Your task to perform on an android device: change keyboard looks Image 0: 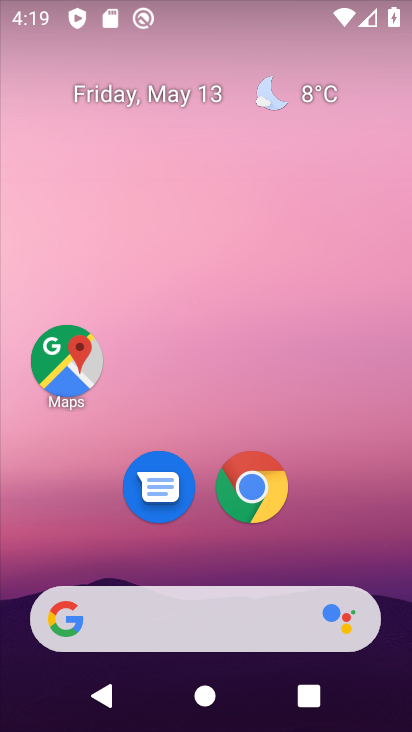
Step 0: click (82, 373)
Your task to perform on an android device: change keyboard looks Image 1: 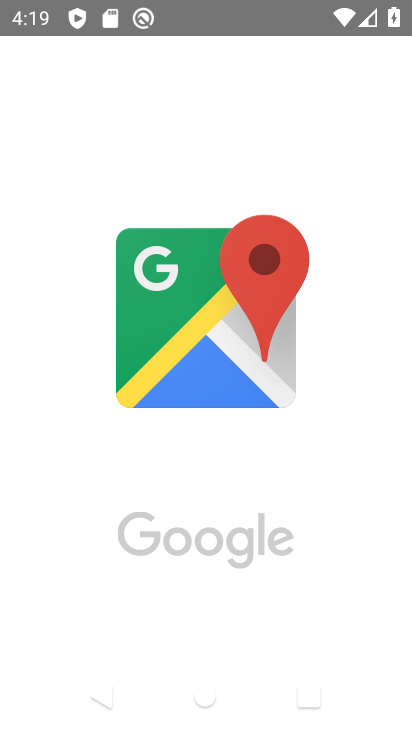
Step 1: press home button
Your task to perform on an android device: change keyboard looks Image 2: 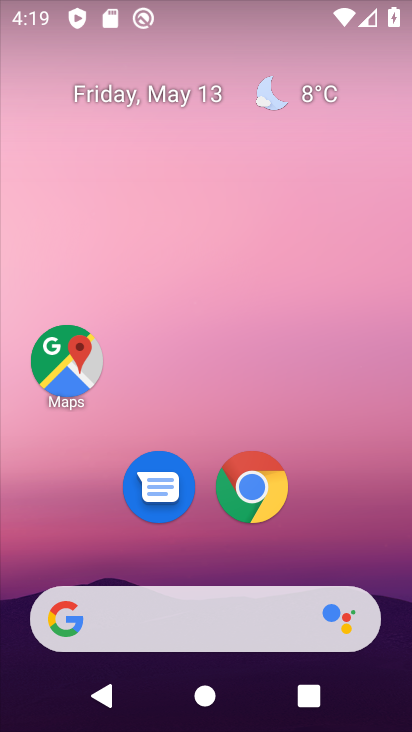
Step 2: drag from (349, 530) to (354, 221)
Your task to perform on an android device: change keyboard looks Image 3: 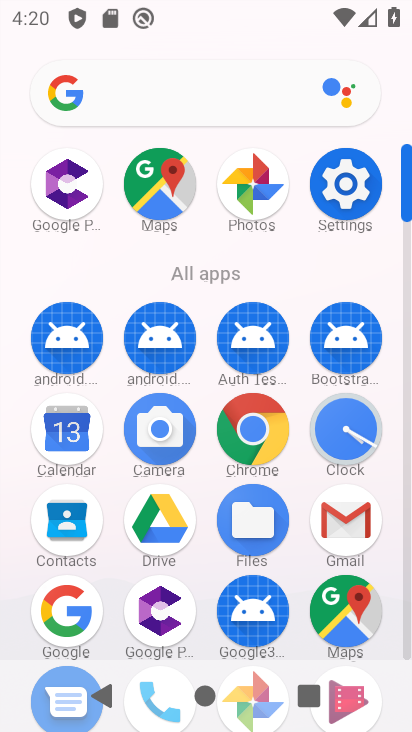
Step 3: click (333, 215)
Your task to perform on an android device: change keyboard looks Image 4: 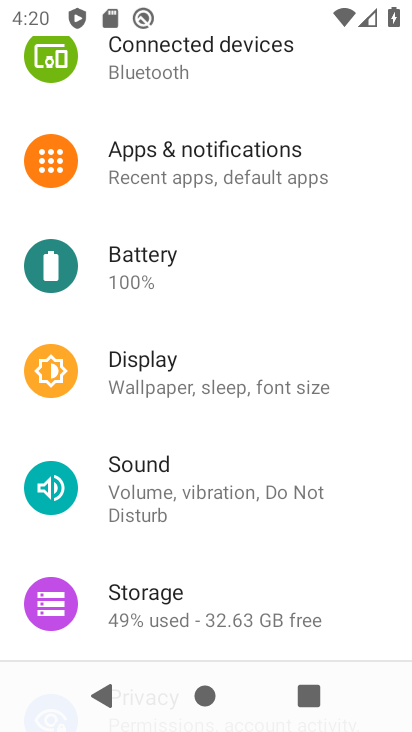
Step 4: drag from (217, 397) to (251, 240)
Your task to perform on an android device: change keyboard looks Image 5: 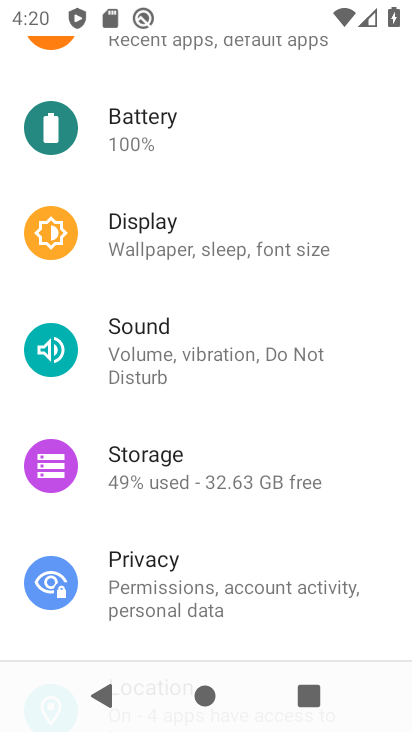
Step 5: drag from (217, 378) to (229, 176)
Your task to perform on an android device: change keyboard looks Image 6: 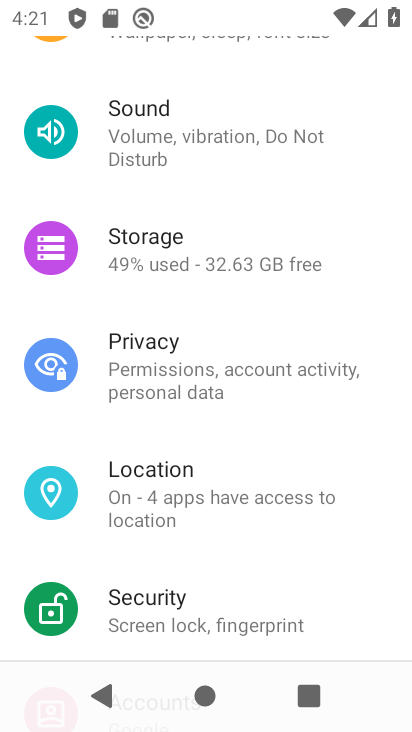
Step 6: drag from (179, 557) to (230, 288)
Your task to perform on an android device: change keyboard looks Image 7: 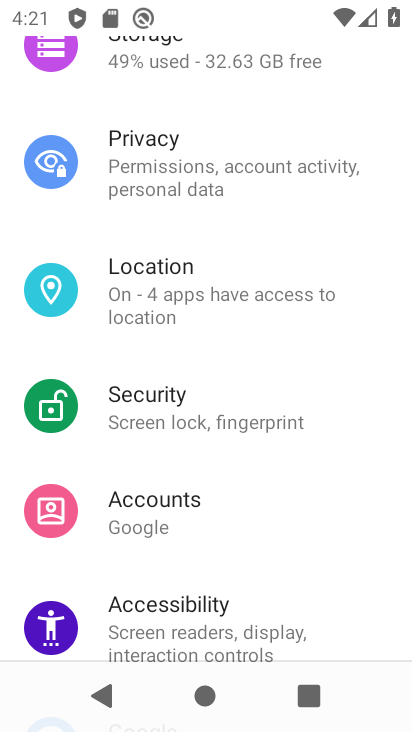
Step 7: drag from (175, 593) to (213, 392)
Your task to perform on an android device: change keyboard looks Image 8: 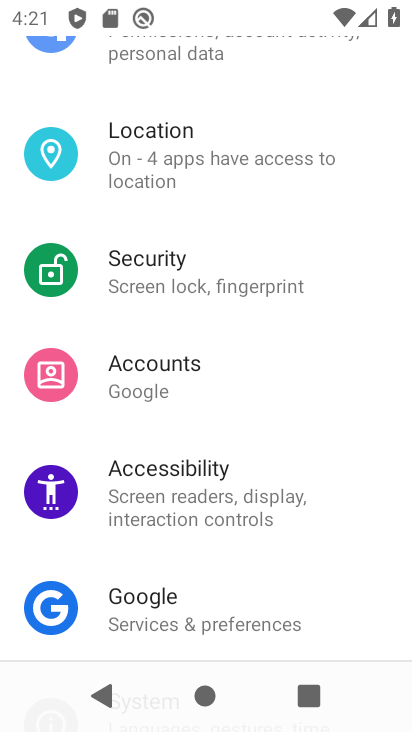
Step 8: drag from (200, 640) to (204, 417)
Your task to perform on an android device: change keyboard looks Image 9: 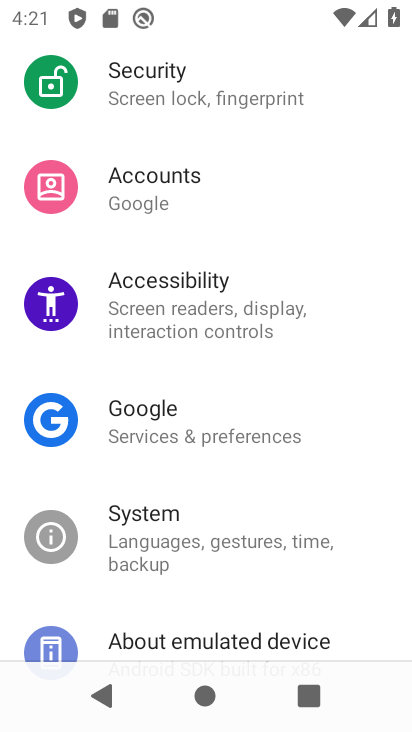
Step 9: click (207, 641)
Your task to perform on an android device: change keyboard looks Image 10: 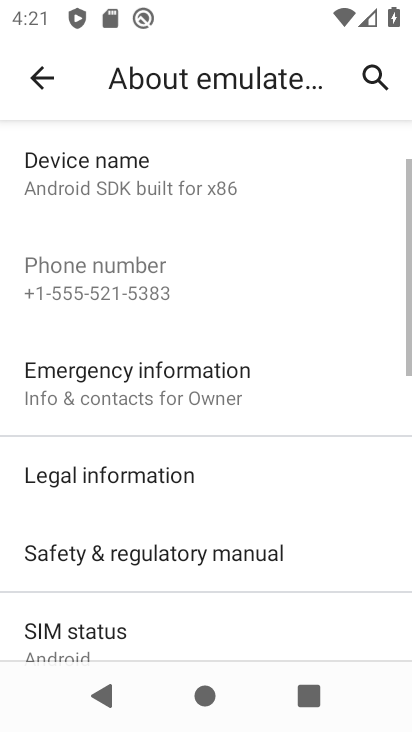
Step 10: click (56, 106)
Your task to perform on an android device: change keyboard looks Image 11: 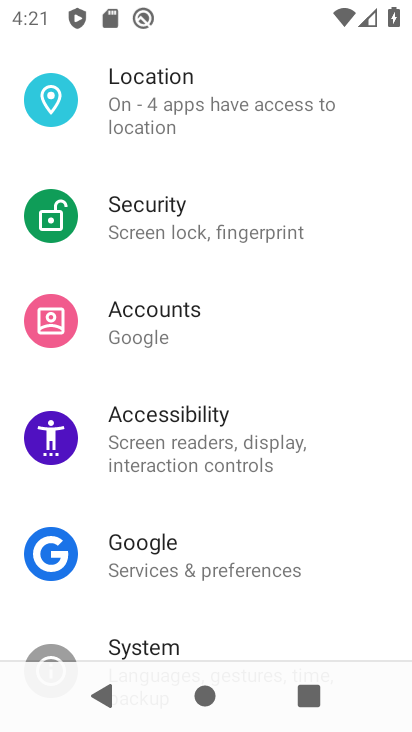
Step 11: click (188, 621)
Your task to perform on an android device: change keyboard looks Image 12: 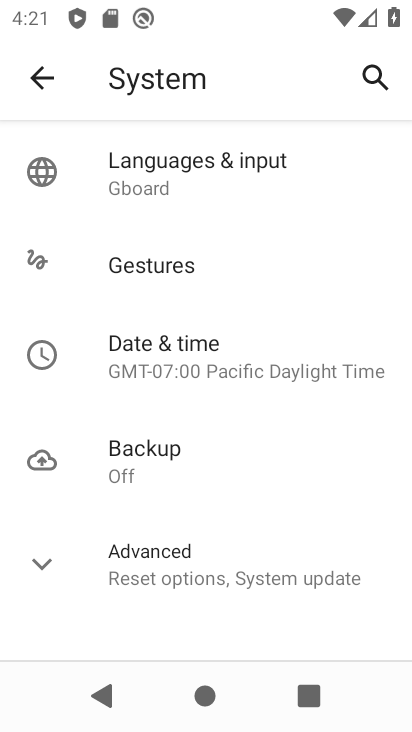
Step 12: click (244, 146)
Your task to perform on an android device: change keyboard looks Image 13: 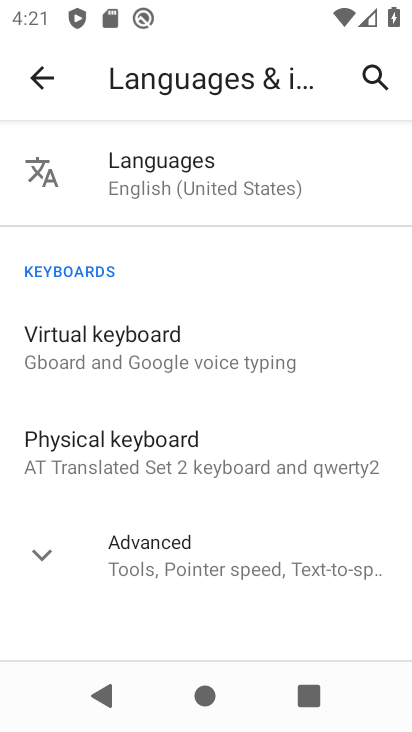
Step 13: click (186, 333)
Your task to perform on an android device: change keyboard looks Image 14: 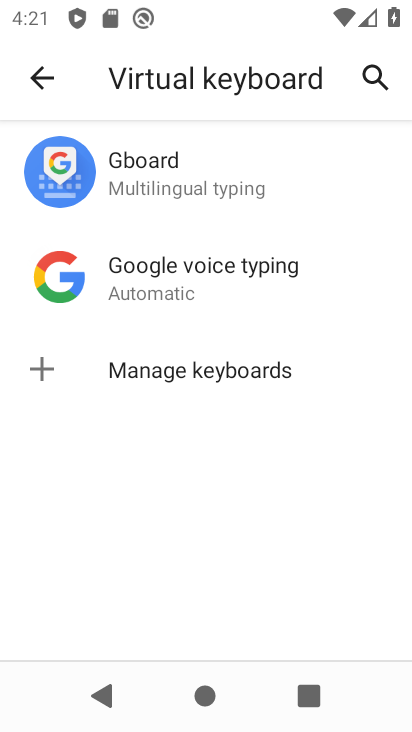
Step 14: click (223, 201)
Your task to perform on an android device: change keyboard looks Image 15: 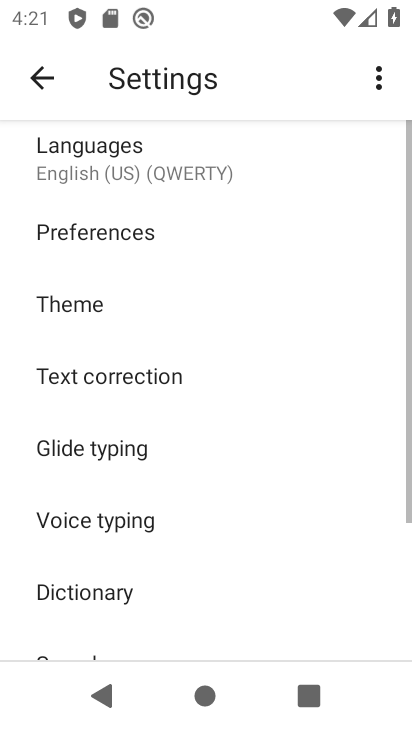
Step 15: click (141, 298)
Your task to perform on an android device: change keyboard looks Image 16: 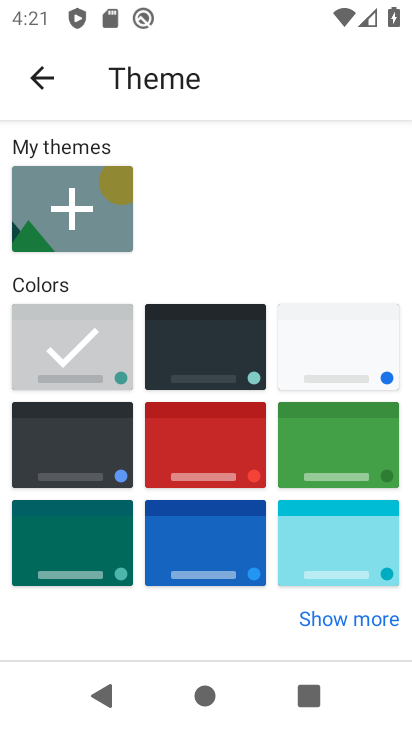
Step 16: click (193, 362)
Your task to perform on an android device: change keyboard looks Image 17: 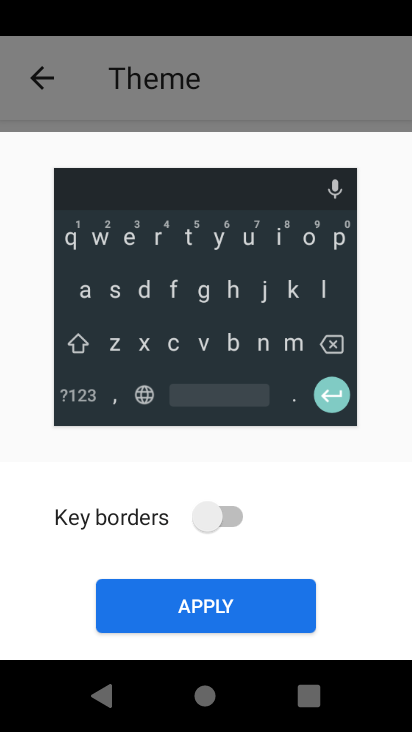
Step 17: click (247, 599)
Your task to perform on an android device: change keyboard looks Image 18: 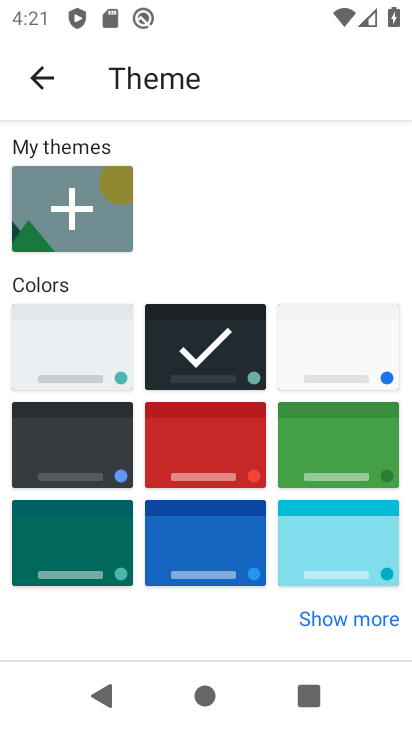
Step 18: task complete